Your task to perform on an android device: Open notification settings Image 0: 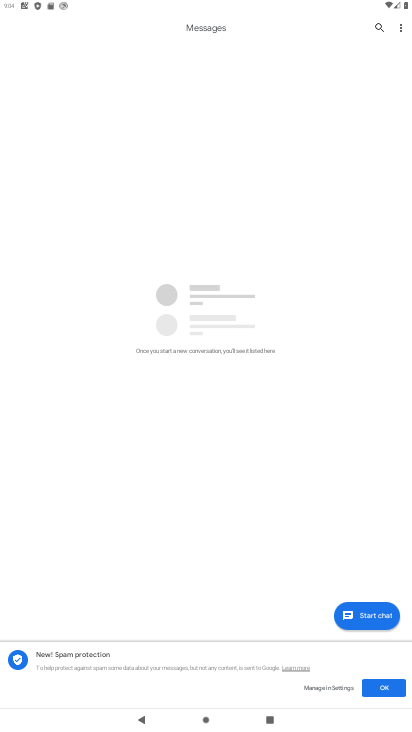
Step 0: press home button
Your task to perform on an android device: Open notification settings Image 1: 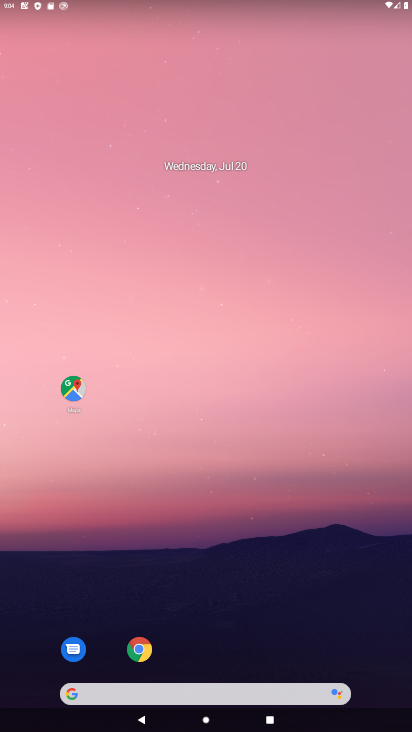
Step 1: drag from (247, 629) to (245, 100)
Your task to perform on an android device: Open notification settings Image 2: 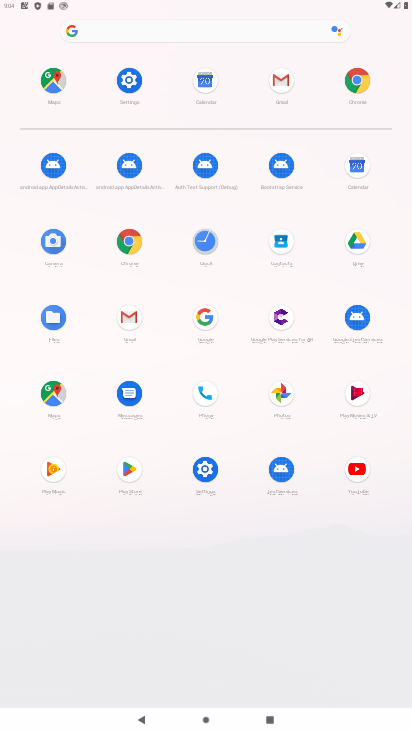
Step 2: click (126, 86)
Your task to perform on an android device: Open notification settings Image 3: 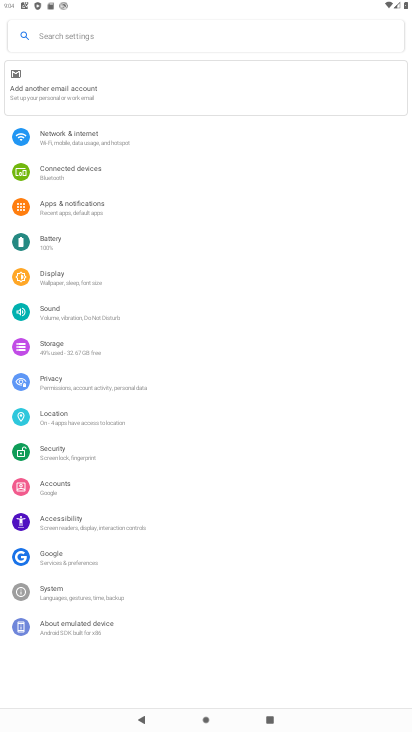
Step 3: click (140, 203)
Your task to perform on an android device: Open notification settings Image 4: 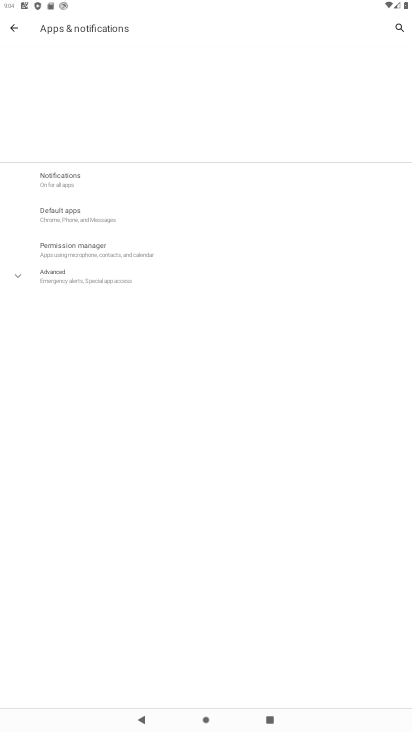
Step 4: task complete